Your task to perform on an android device: change the clock display to analog Image 0: 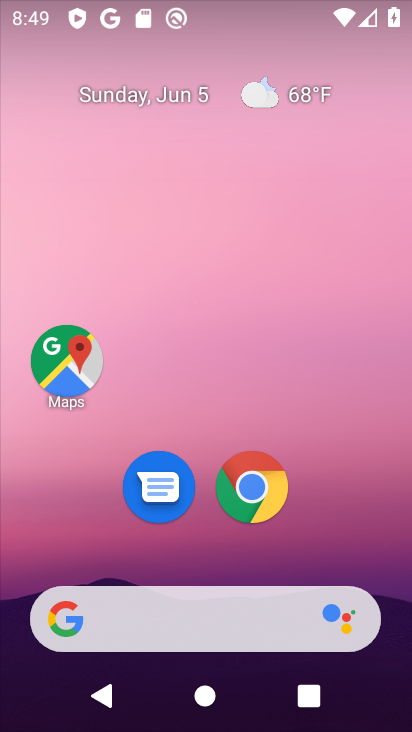
Step 0: drag from (249, 565) to (292, 75)
Your task to perform on an android device: change the clock display to analog Image 1: 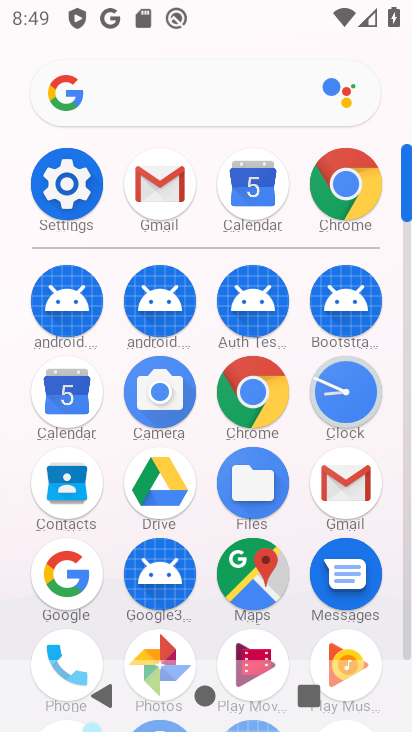
Step 1: click (339, 414)
Your task to perform on an android device: change the clock display to analog Image 2: 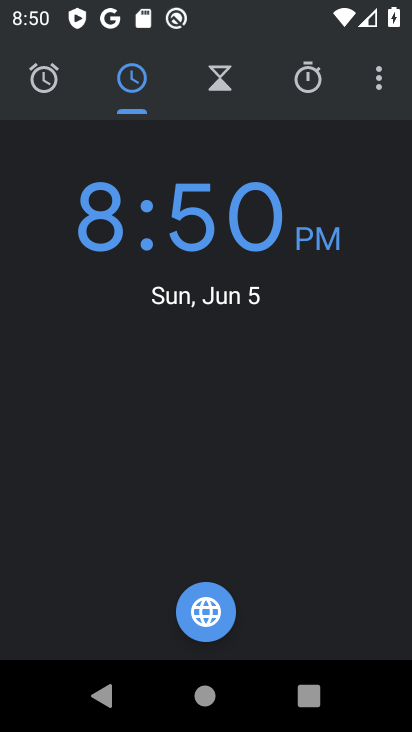
Step 2: click (385, 78)
Your task to perform on an android device: change the clock display to analog Image 3: 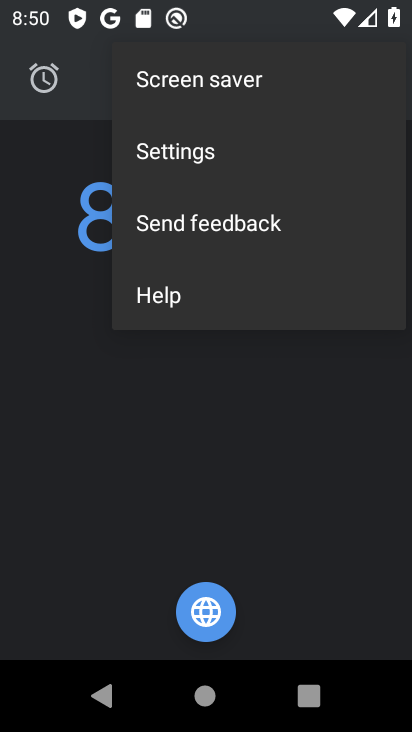
Step 3: click (177, 158)
Your task to perform on an android device: change the clock display to analog Image 4: 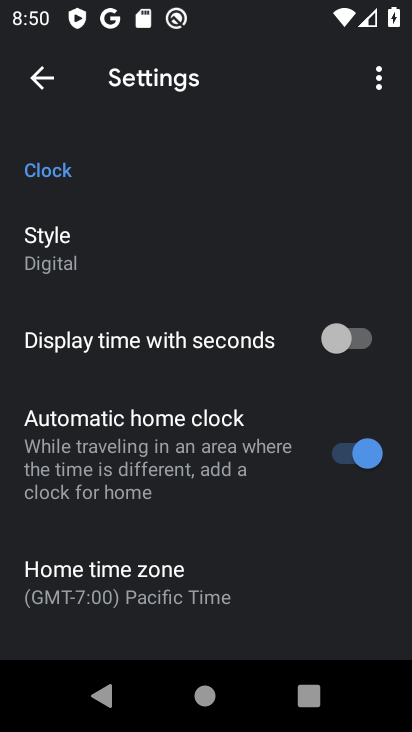
Step 4: click (92, 263)
Your task to perform on an android device: change the clock display to analog Image 5: 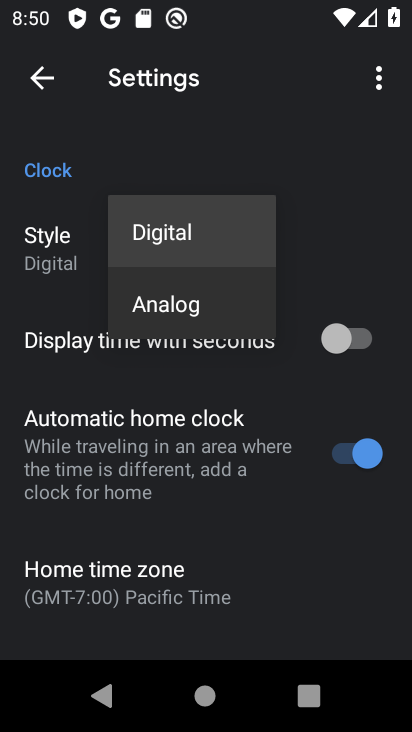
Step 5: click (152, 299)
Your task to perform on an android device: change the clock display to analog Image 6: 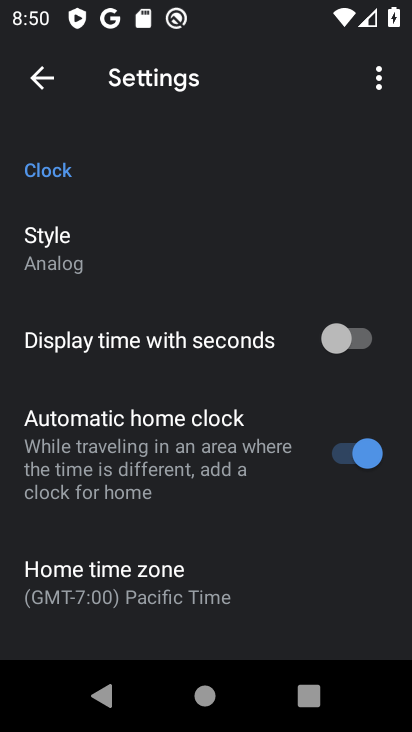
Step 6: task complete